Your task to perform on an android device: turn vacation reply on in the gmail app Image 0: 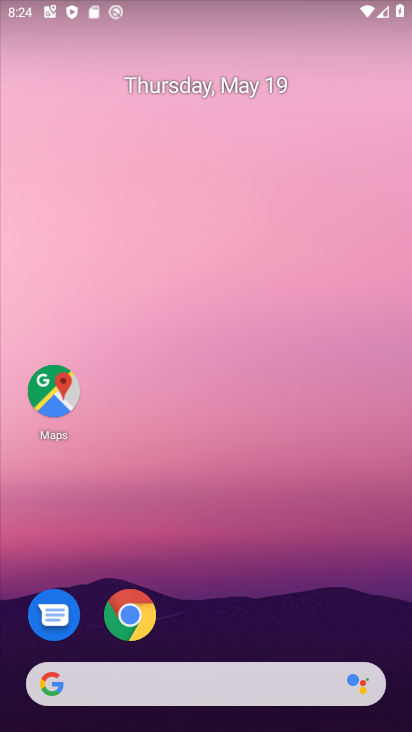
Step 0: drag from (217, 595) to (244, 136)
Your task to perform on an android device: turn vacation reply on in the gmail app Image 1: 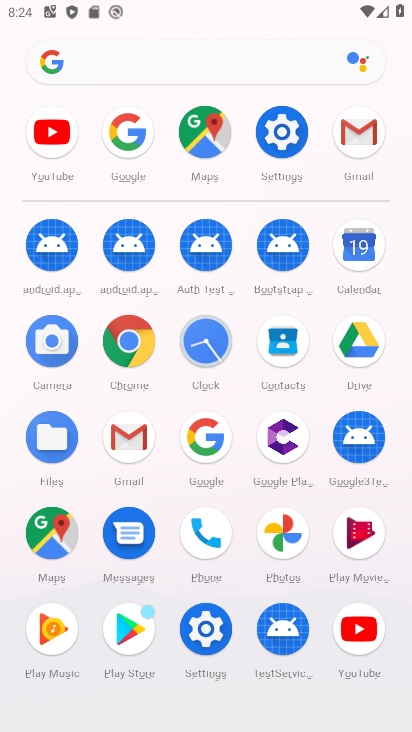
Step 1: click (134, 426)
Your task to perform on an android device: turn vacation reply on in the gmail app Image 2: 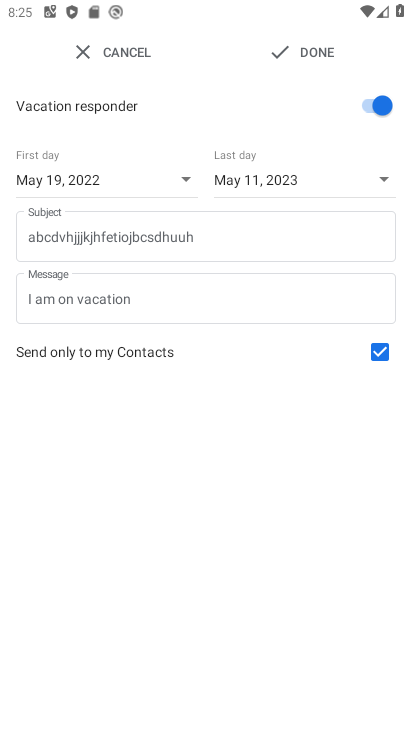
Step 2: task complete